Your task to perform on an android device: check google app version Image 0: 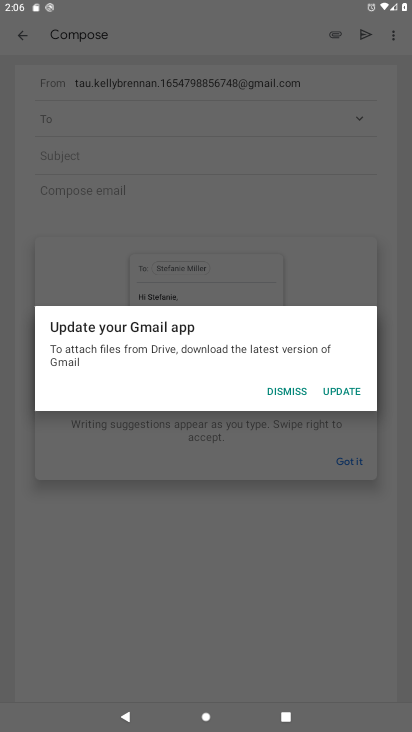
Step 0: press home button
Your task to perform on an android device: check google app version Image 1: 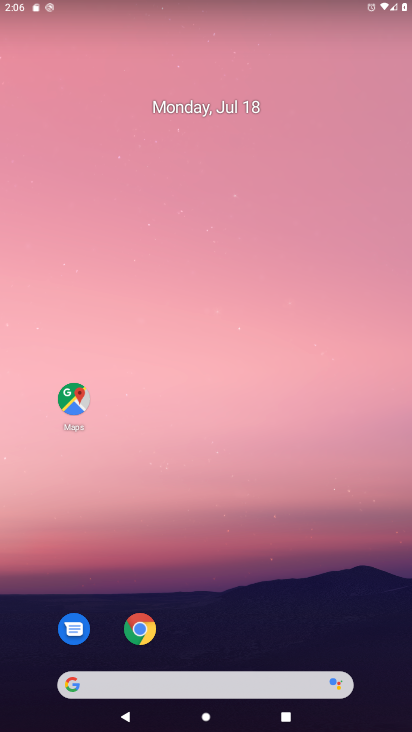
Step 1: click (64, 680)
Your task to perform on an android device: check google app version Image 2: 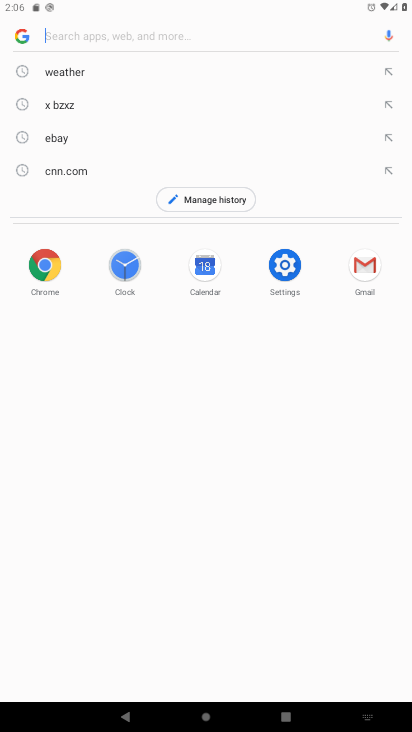
Step 2: click (30, 38)
Your task to perform on an android device: check google app version Image 3: 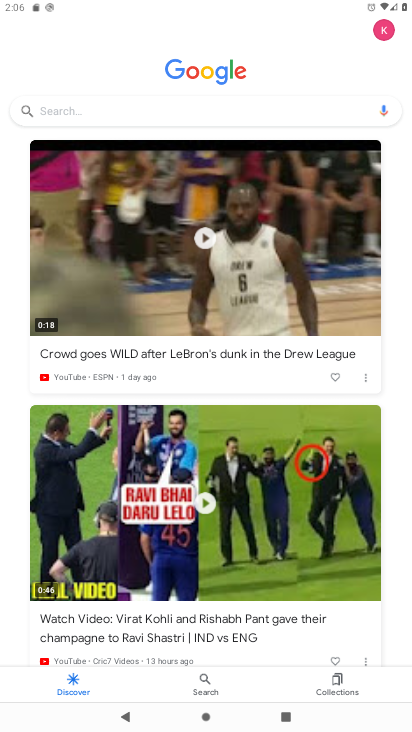
Step 3: click (389, 31)
Your task to perform on an android device: check google app version Image 4: 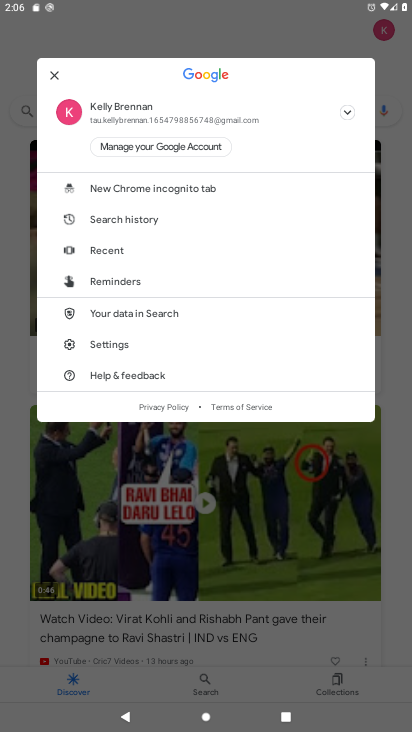
Step 4: click (95, 336)
Your task to perform on an android device: check google app version Image 5: 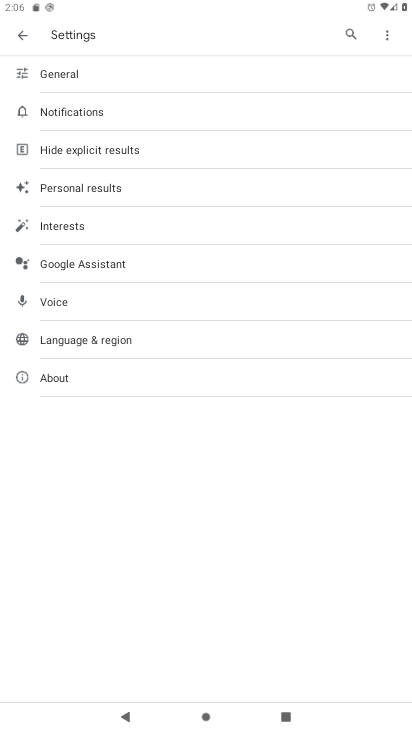
Step 5: click (107, 378)
Your task to perform on an android device: check google app version Image 6: 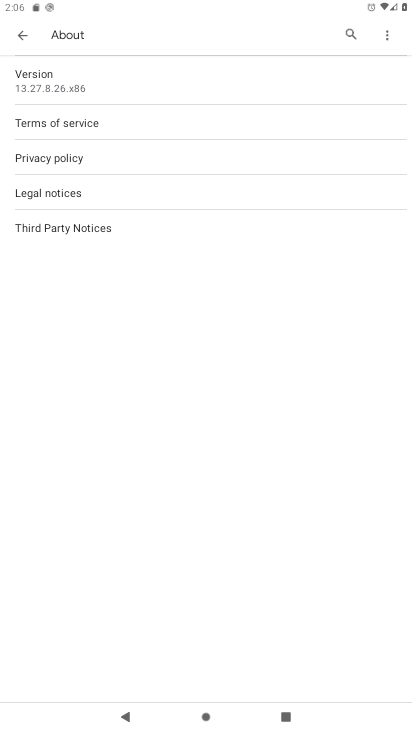
Step 6: task complete